Your task to perform on an android device: Search for pizza restaurants on Maps Image 0: 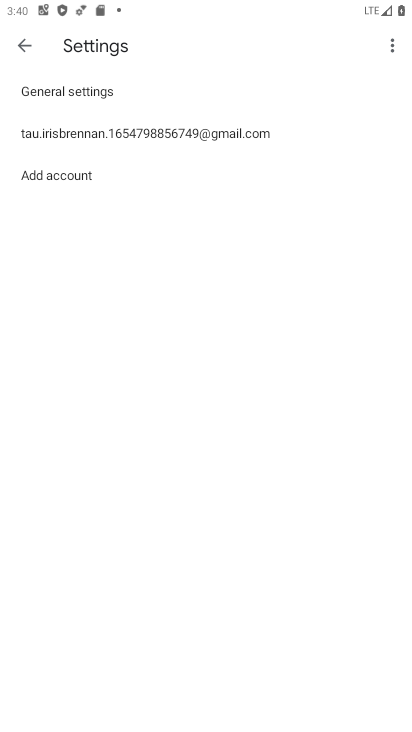
Step 0: press home button
Your task to perform on an android device: Search for pizza restaurants on Maps Image 1: 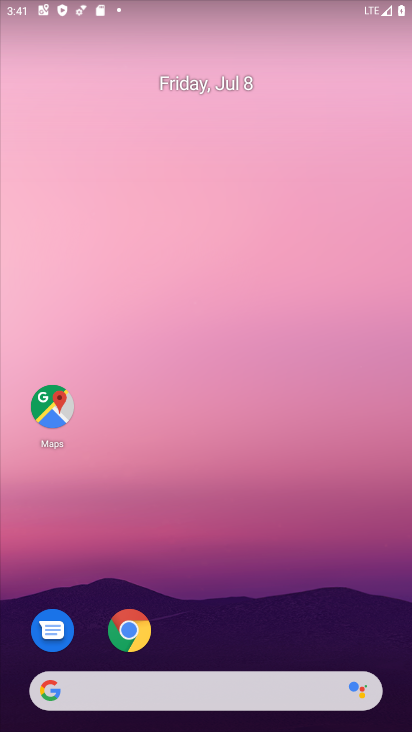
Step 1: click (51, 407)
Your task to perform on an android device: Search for pizza restaurants on Maps Image 2: 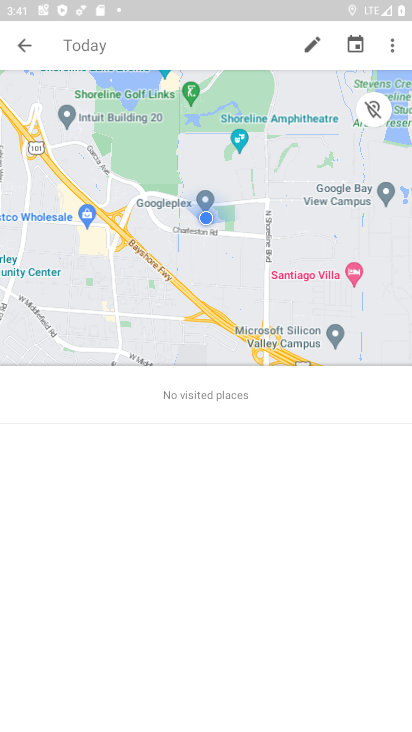
Step 2: press back button
Your task to perform on an android device: Search for pizza restaurants on Maps Image 3: 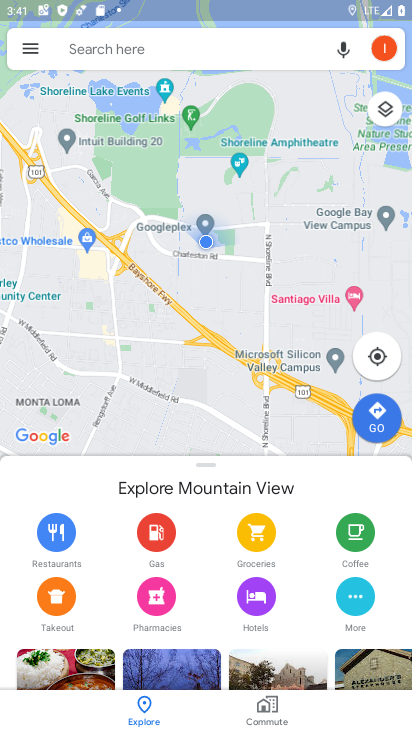
Step 3: click (205, 50)
Your task to perform on an android device: Search for pizza restaurants on Maps Image 4: 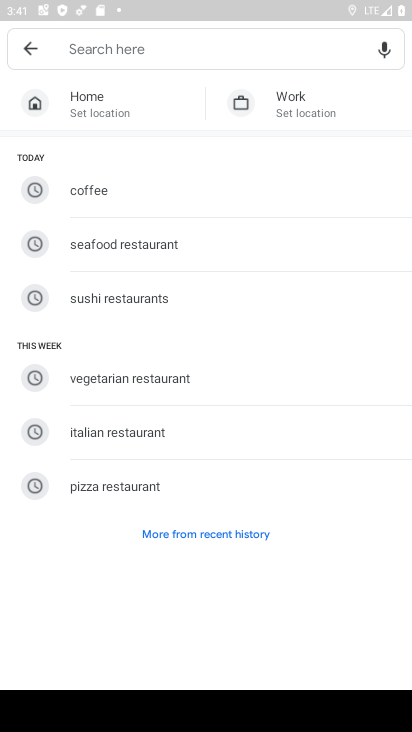
Step 4: click (145, 484)
Your task to perform on an android device: Search for pizza restaurants on Maps Image 5: 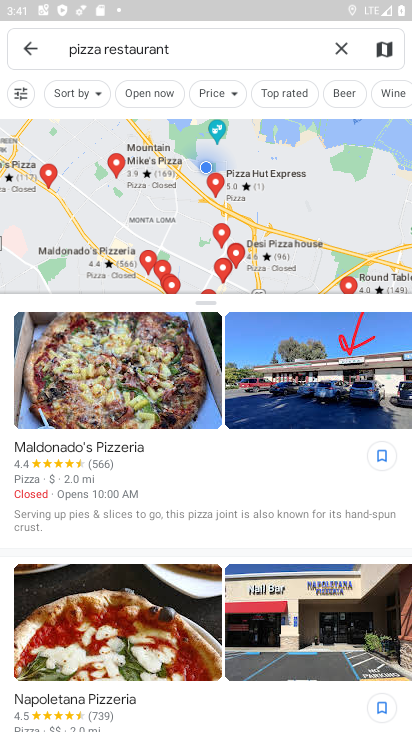
Step 5: task complete